Your task to perform on an android device: check data usage Image 0: 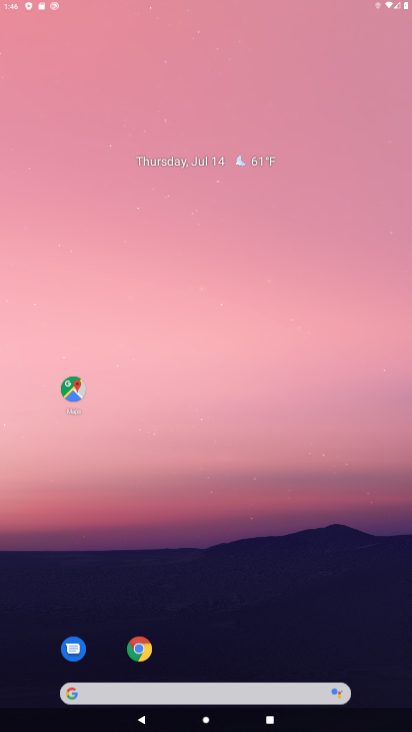
Step 0: press home button
Your task to perform on an android device: check data usage Image 1: 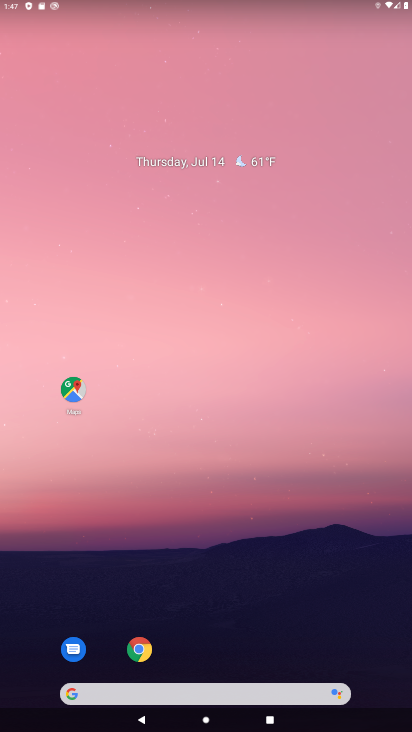
Step 1: drag from (217, 650) to (231, 34)
Your task to perform on an android device: check data usage Image 2: 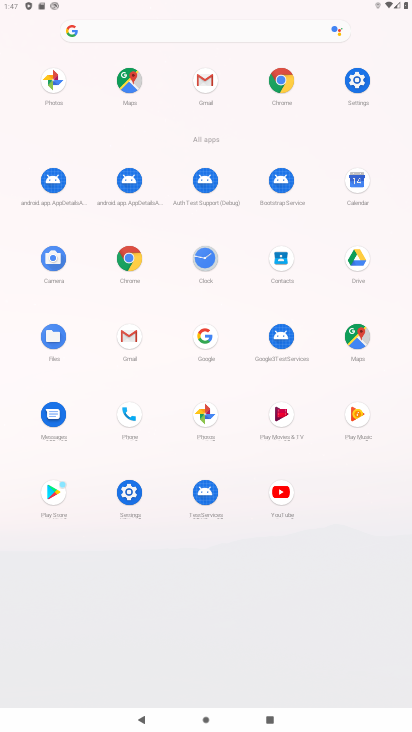
Step 2: click (361, 74)
Your task to perform on an android device: check data usage Image 3: 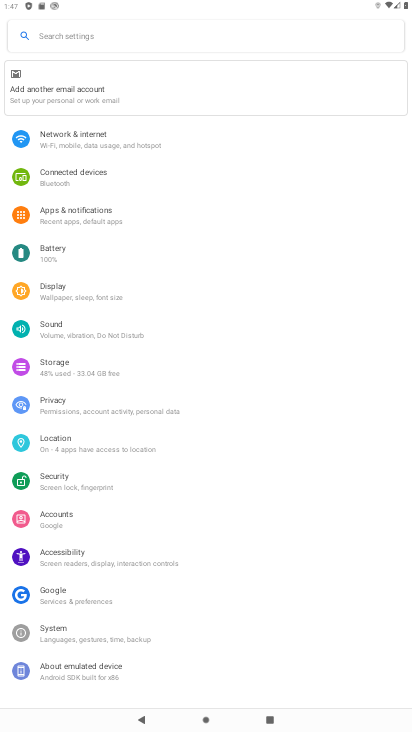
Step 3: click (118, 137)
Your task to perform on an android device: check data usage Image 4: 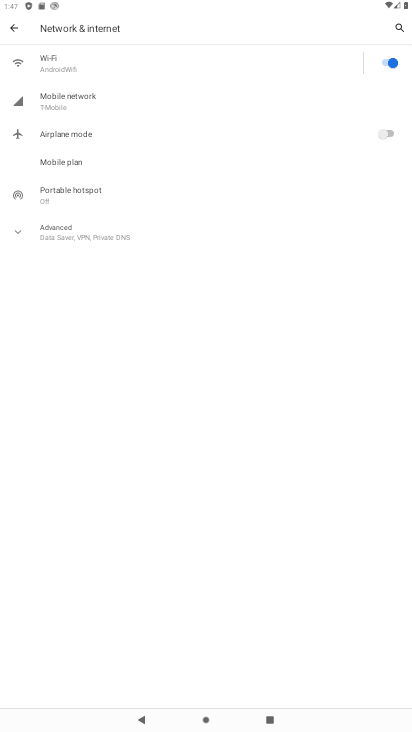
Step 4: click (86, 102)
Your task to perform on an android device: check data usage Image 5: 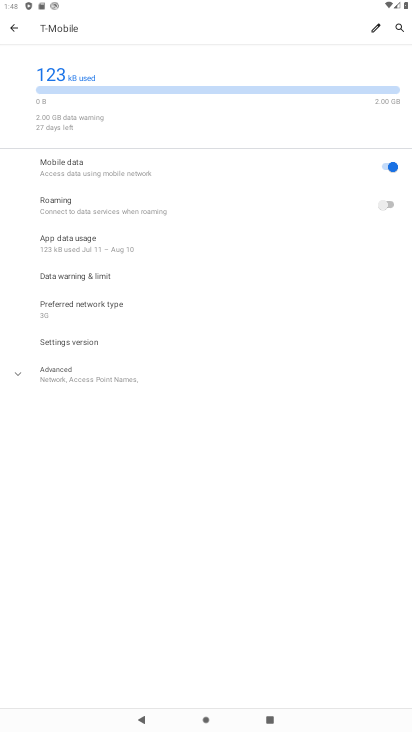
Step 5: click (104, 236)
Your task to perform on an android device: check data usage Image 6: 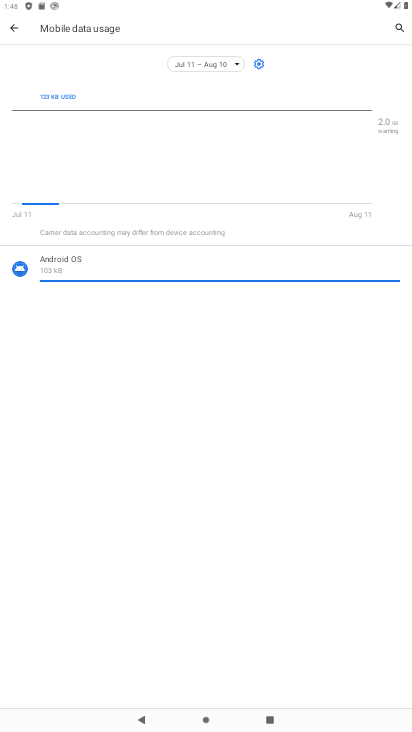
Step 6: task complete